Your task to perform on an android device: change keyboard looks Image 0: 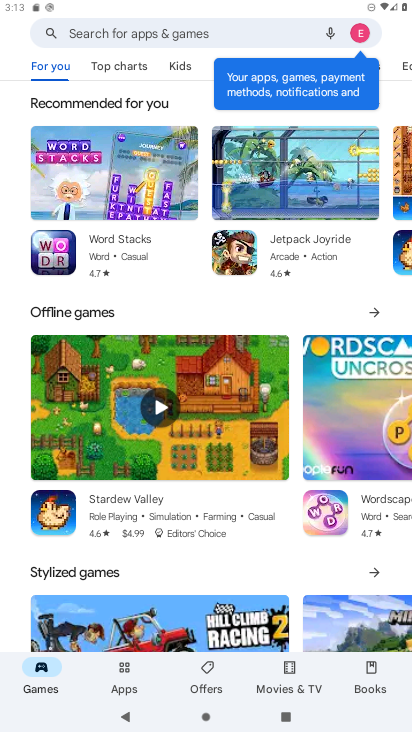
Step 0: press home button
Your task to perform on an android device: change keyboard looks Image 1: 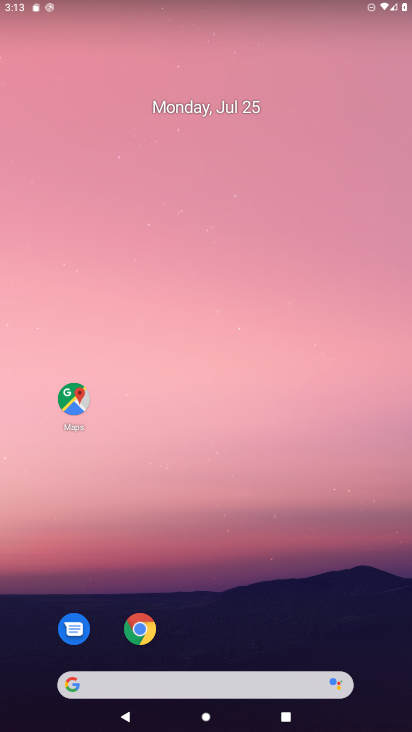
Step 1: drag from (316, 566) to (202, 17)
Your task to perform on an android device: change keyboard looks Image 2: 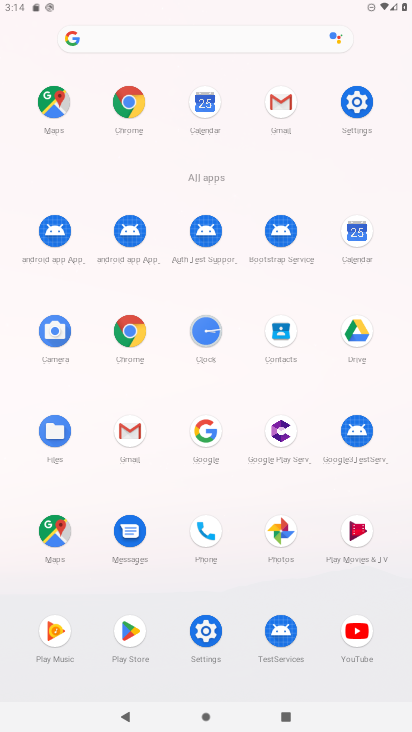
Step 2: click (351, 111)
Your task to perform on an android device: change keyboard looks Image 3: 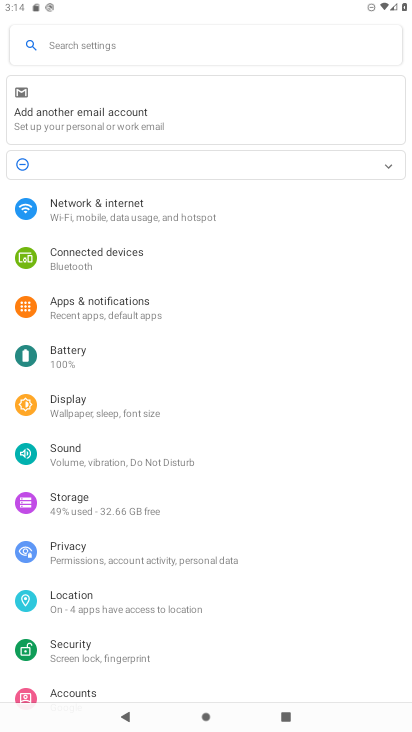
Step 3: drag from (197, 614) to (167, 161)
Your task to perform on an android device: change keyboard looks Image 4: 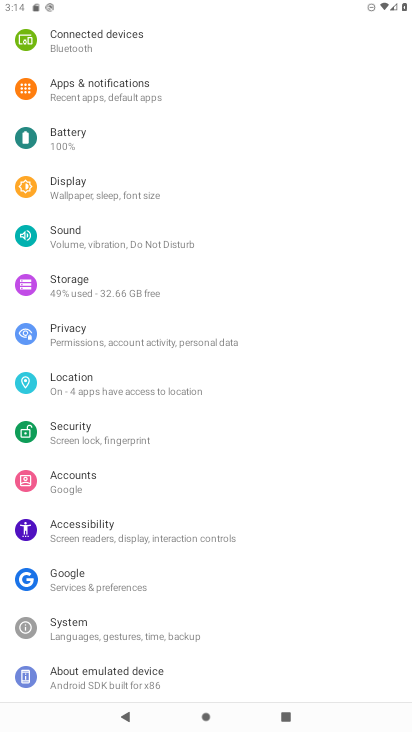
Step 4: click (169, 629)
Your task to perform on an android device: change keyboard looks Image 5: 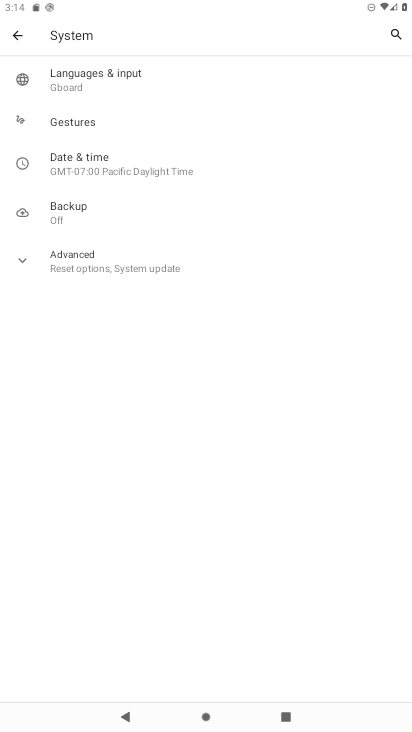
Step 5: click (134, 82)
Your task to perform on an android device: change keyboard looks Image 6: 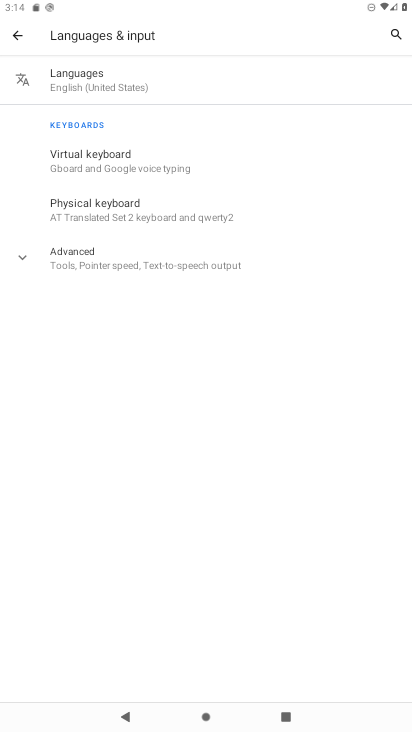
Step 6: click (90, 155)
Your task to perform on an android device: change keyboard looks Image 7: 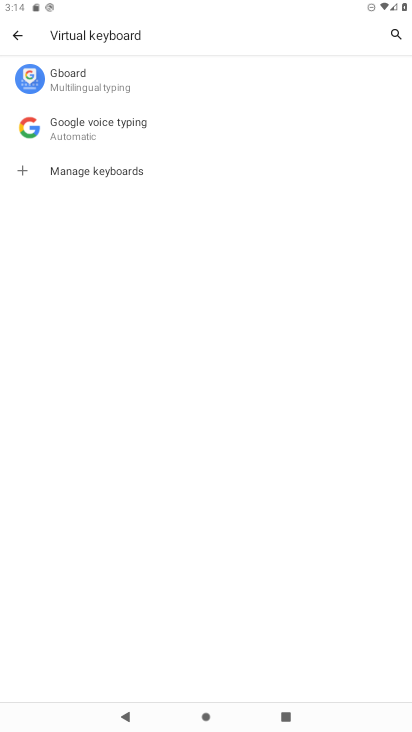
Step 7: click (103, 81)
Your task to perform on an android device: change keyboard looks Image 8: 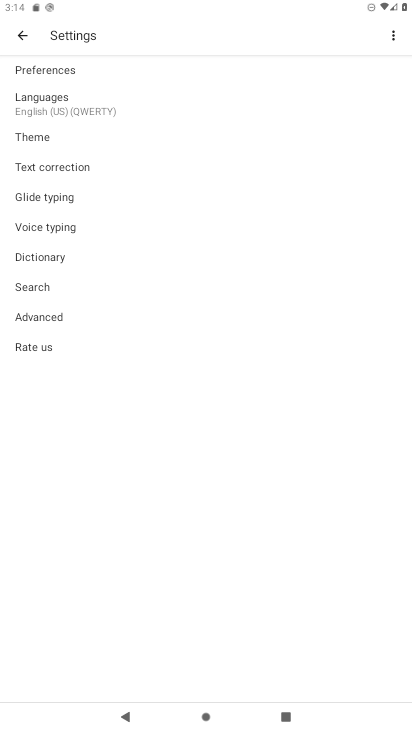
Step 8: click (50, 135)
Your task to perform on an android device: change keyboard looks Image 9: 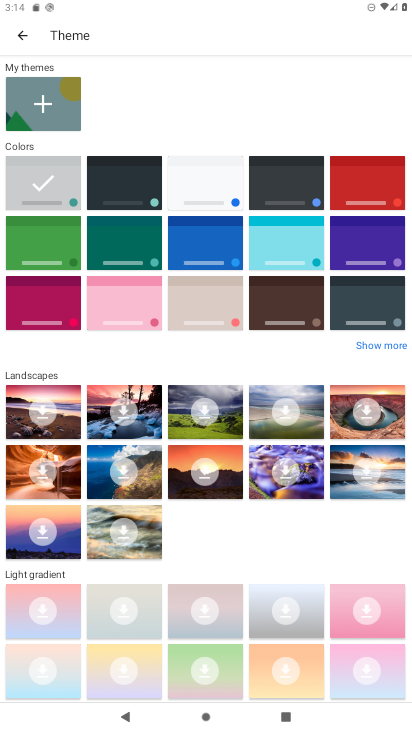
Step 9: click (137, 310)
Your task to perform on an android device: change keyboard looks Image 10: 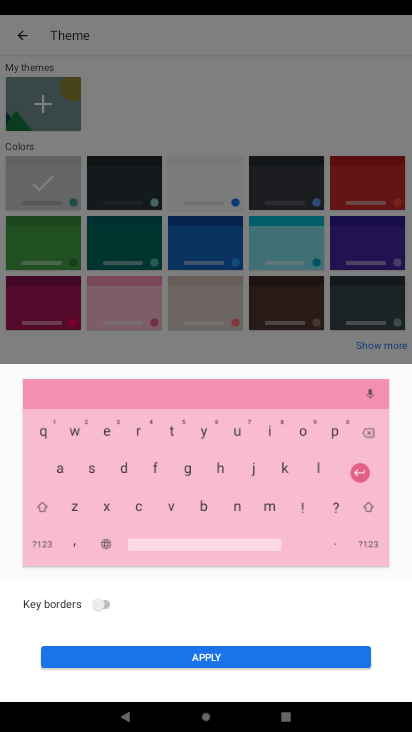
Step 10: click (225, 658)
Your task to perform on an android device: change keyboard looks Image 11: 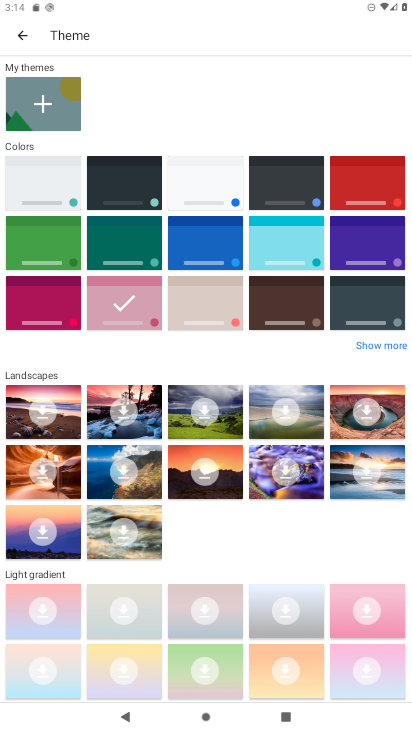
Step 11: task complete